Your task to perform on an android device: delete location history Image 0: 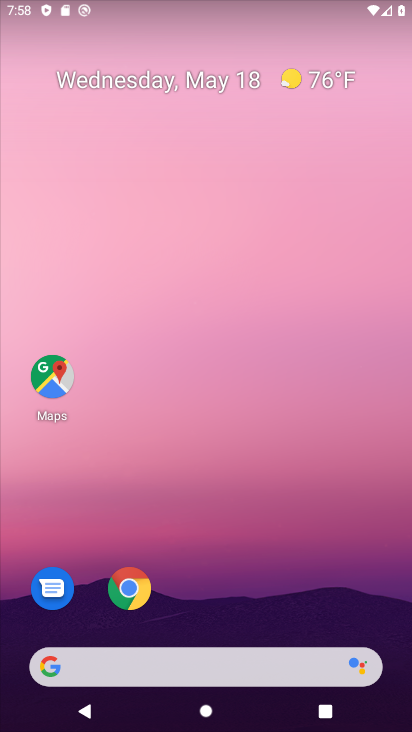
Step 0: drag from (291, 621) to (268, 40)
Your task to perform on an android device: delete location history Image 1: 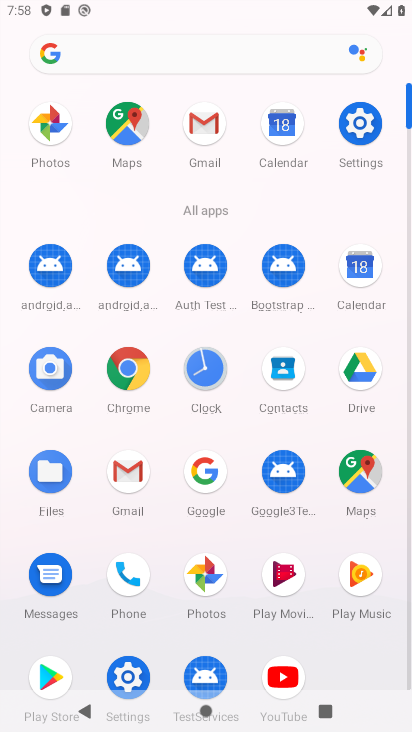
Step 1: click (368, 153)
Your task to perform on an android device: delete location history Image 2: 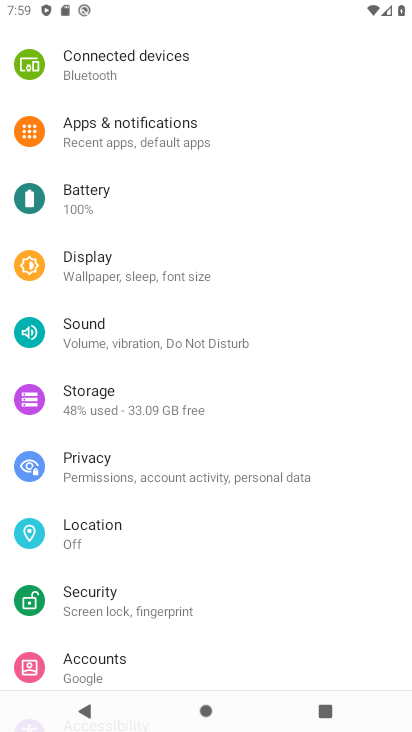
Step 2: click (278, 509)
Your task to perform on an android device: delete location history Image 3: 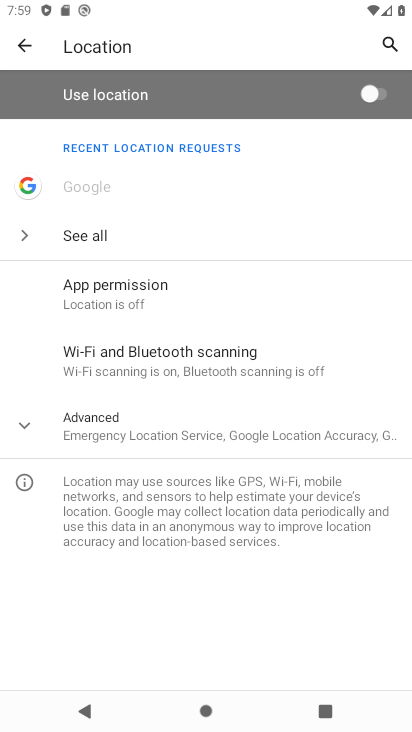
Step 3: click (234, 402)
Your task to perform on an android device: delete location history Image 4: 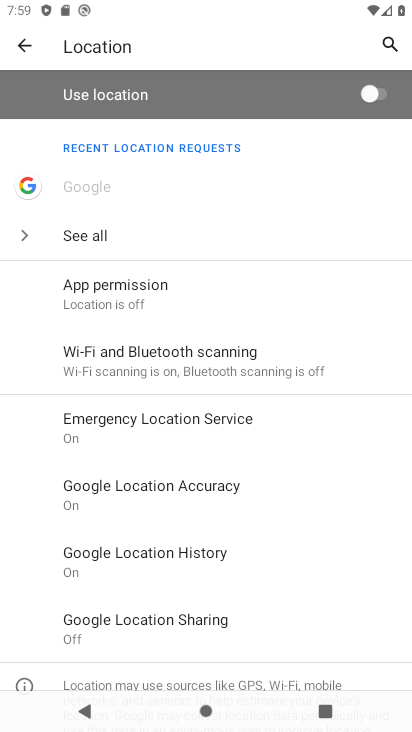
Step 4: click (200, 580)
Your task to perform on an android device: delete location history Image 5: 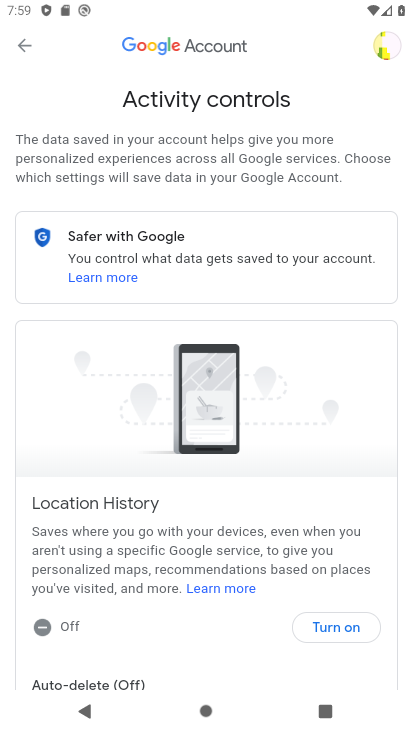
Step 5: drag from (238, 621) to (264, 355)
Your task to perform on an android device: delete location history Image 6: 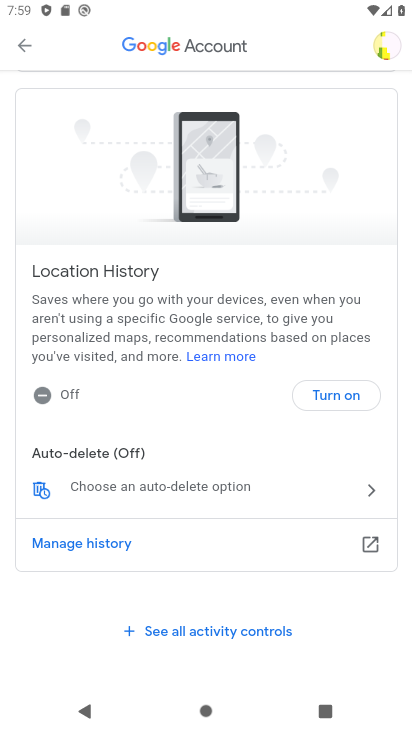
Step 6: click (114, 553)
Your task to perform on an android device: delete location history Image 7: 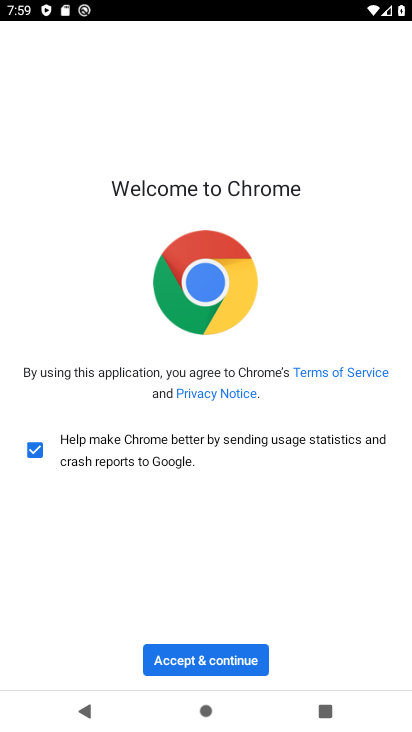
Step 7: click (152, 645)
Your task to perform on an android device: delete location history Image 8: 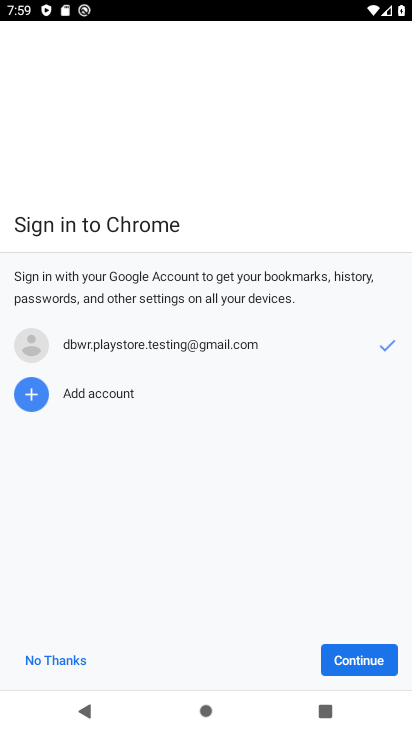
Step 8: click (335, 657)
Your task to perform on an android device: delete location history Image 9: 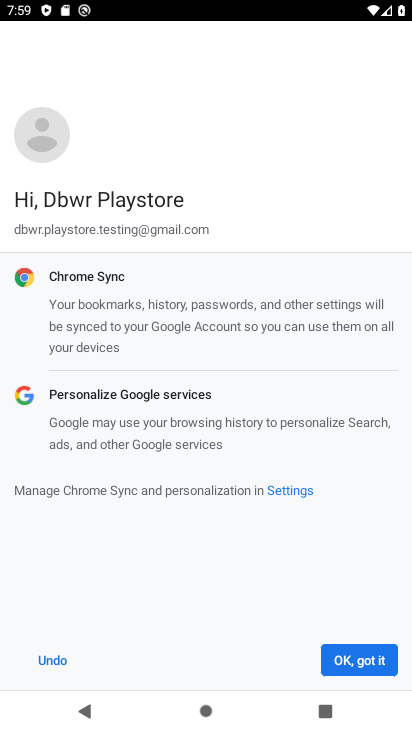
Step 9: click (335, 657)
Your task to perform on an android device: delete location history Image 10: 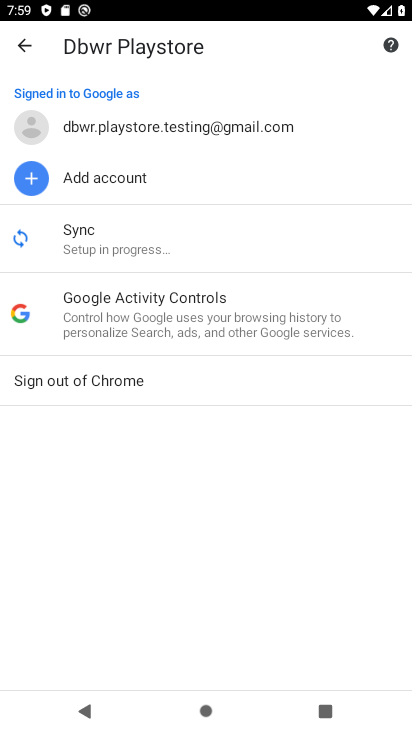
Step 10: click (21, 30)
Your task to perform on an android device: delete location history Image 11: 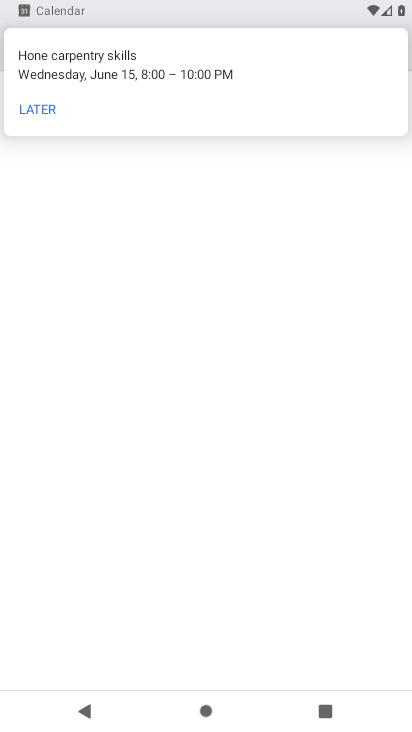
Step 11: click (52, 106)
Your task to perform on an android device: delete location history Image 12: 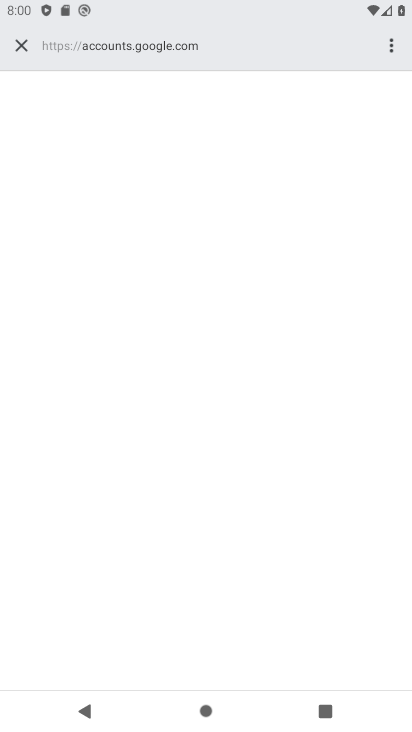
Step 12: click (28, 57)
Your task to perform on an android device: delete location history Image 13: 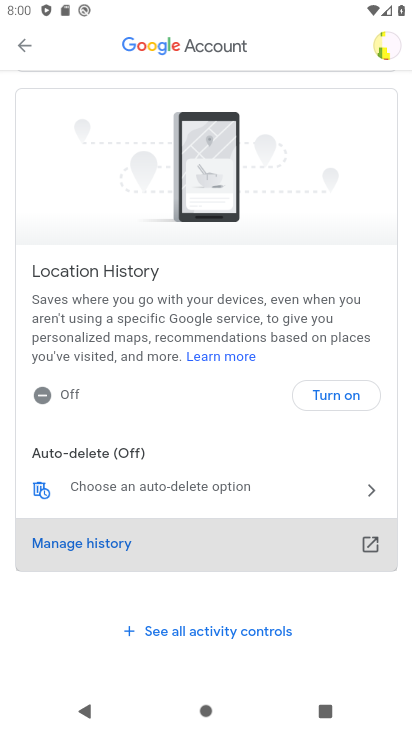
Step 13: click (147, 541)
Your task to perform on an android device: delete location history Image 14: 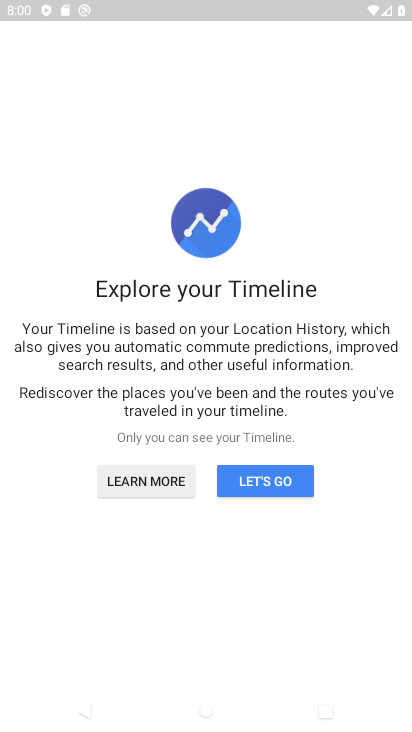
Step 14: click (281, 479)
Your task to perform on an android device: delete location history Image 15: 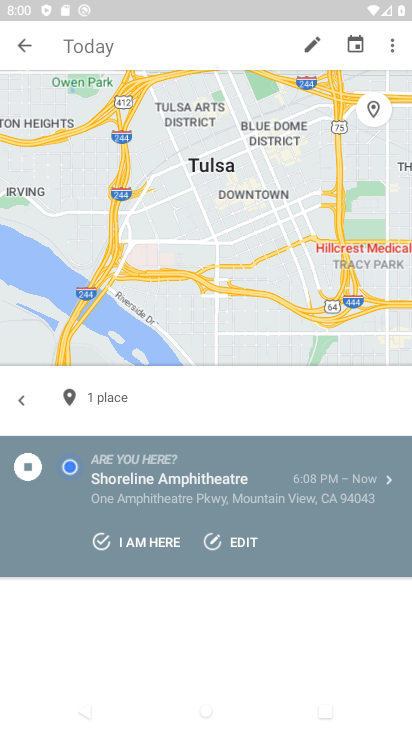
Step 15: click (386, 476)
Your task to perform on an android device: delete location history Image 16: 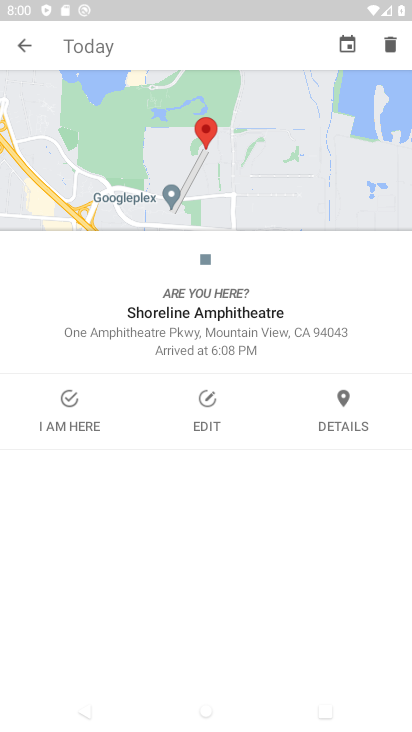
Step 16: click (202, 402)
Your task to perform on an android device: delete location history Image 17: 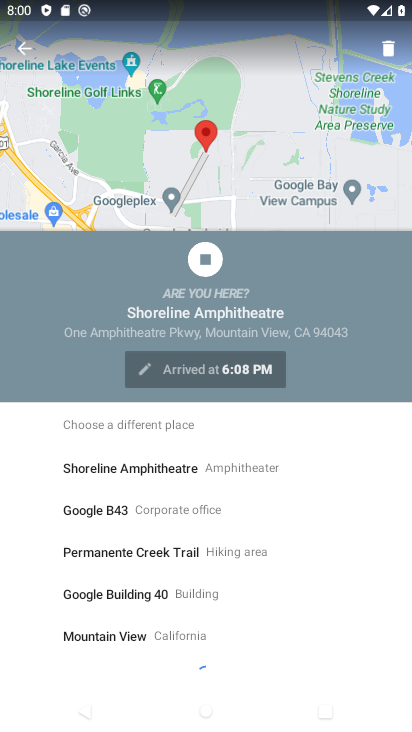
Step 17: click (386, 47)
Your task to perform on an android device: delete location history Image 18: 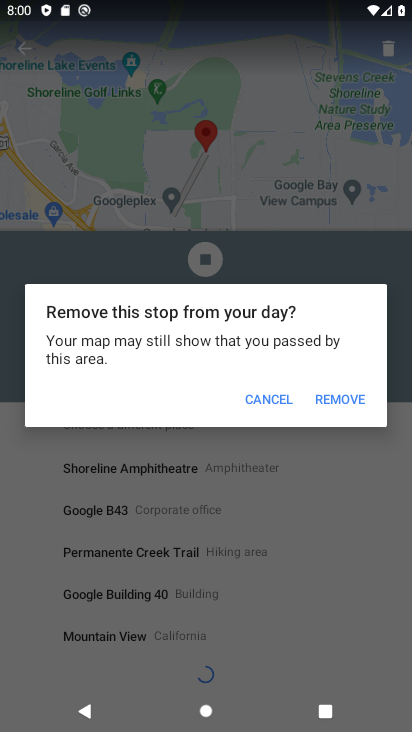
Step 18: click (321, 391)
Your task to perform on an android device: delete location history Image 19: 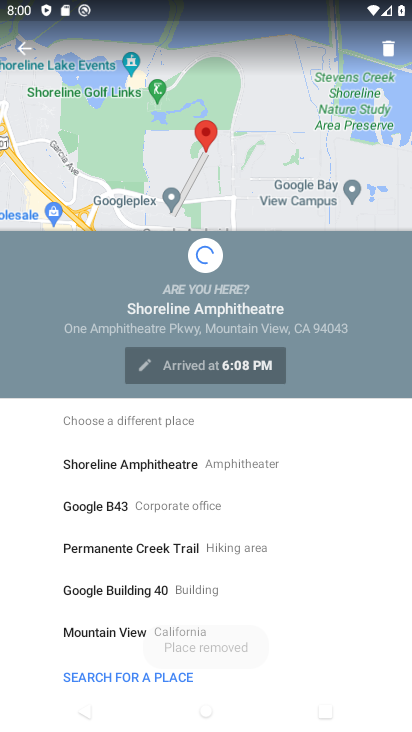
Step 19: task complete